Your task to perform on an android device: Play the last video I watched on Youtube Image 0: 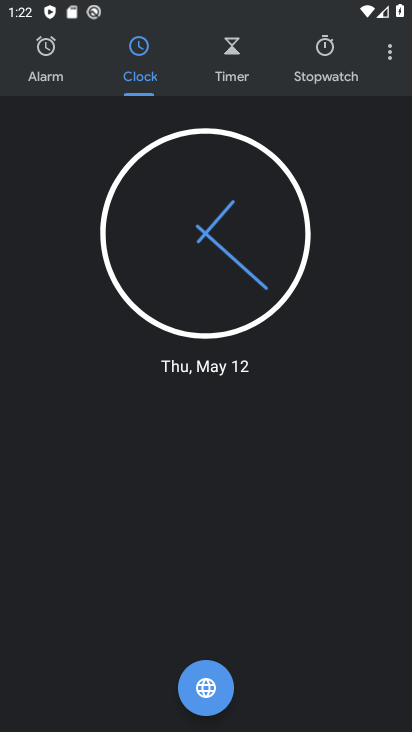
Step 0: press home button
Your task to perform on an android device: Play the last video I watched on Youtube Image 1: 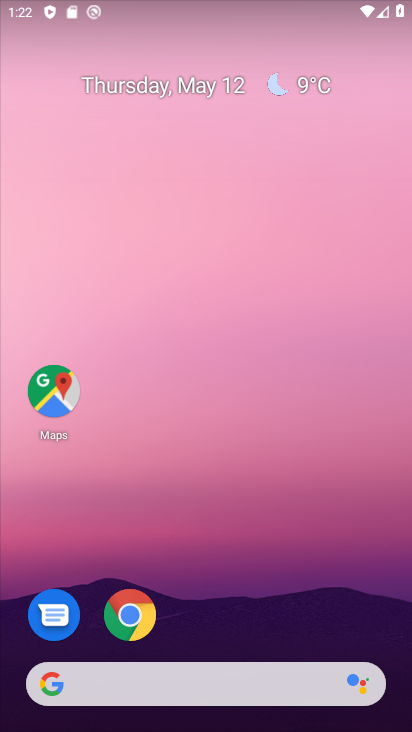
Step 1: drag from (203, 659) to (202, 396)
Your task to perform on an android device: Play the last video I watched on Youtube Image 2: 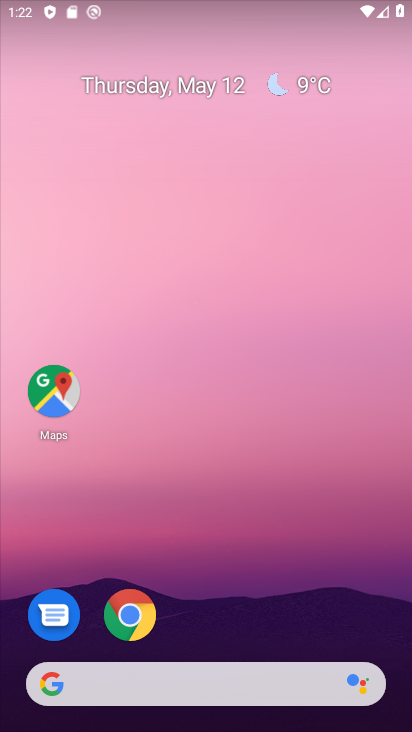
Step 2: drag from (252, 691) to (284, 349)
Your task to perform on an android device: Play the last video I watched on Youtube Image 3: 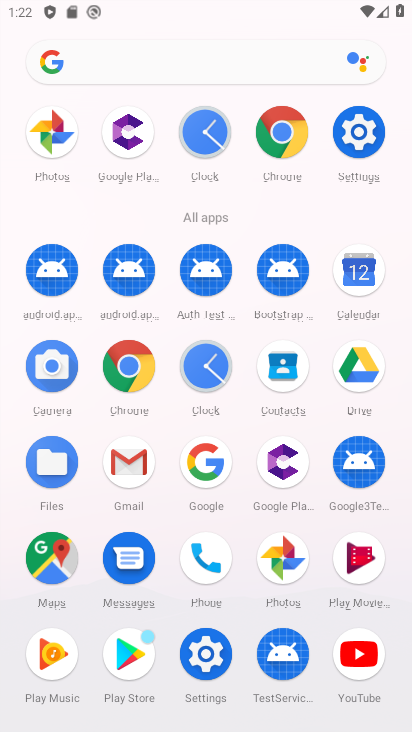
Step 3: click (368, 652)
Your task to perform on an android device: Play the last video I watched on Youtube Image 4: 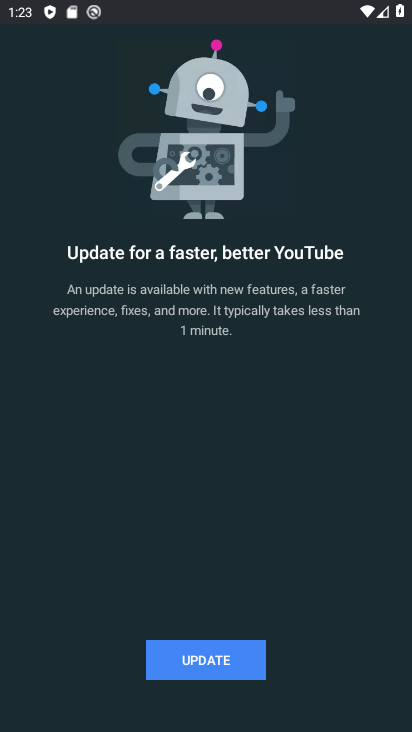
Step 4: click (213, 671)
Your task to perform on an android device: Play the last video I watched on Youtube Image 5: 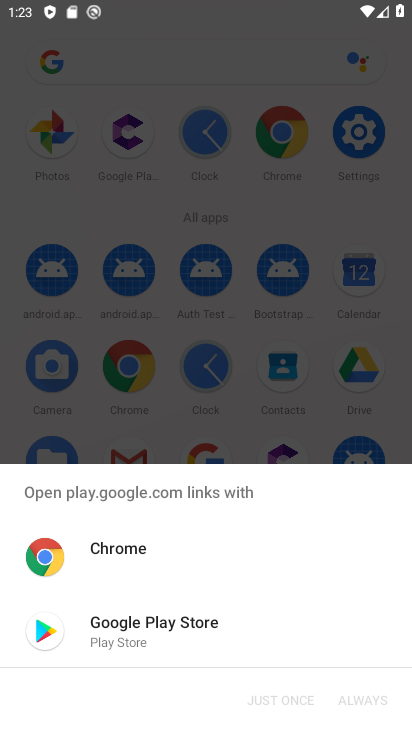
Step 5: click (104, 627)
Your task to perform on an android device: Play the last video I watched on Youtube Image 6: 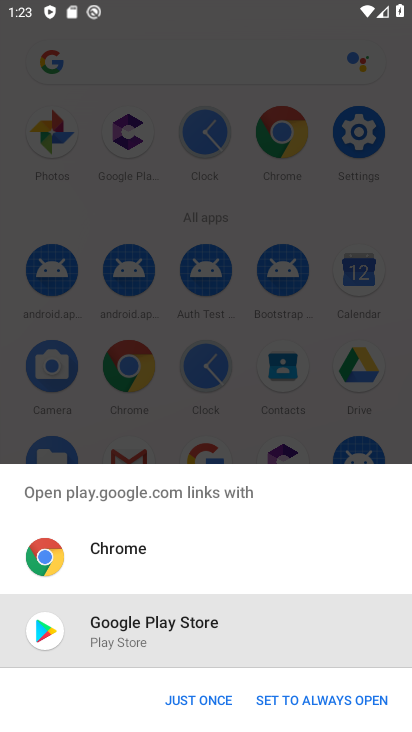
Step 6: click (208, 705)
Your task to perform on an android device: Play the last video I watched on Youtube Image 7: 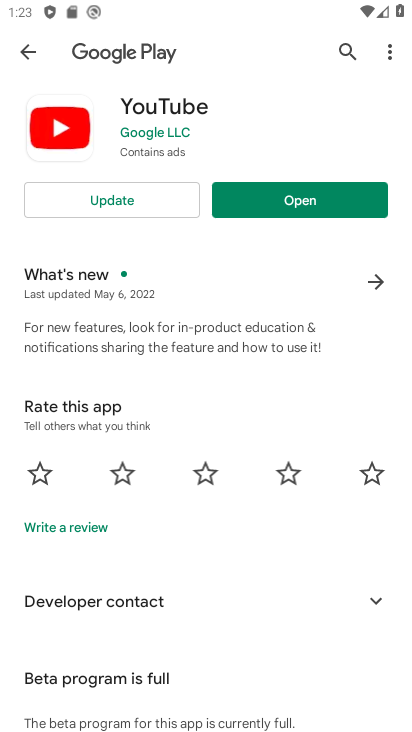
Step 7: click (143, 206)
Your task to perform on an android device: Play the last video I watched on Youtube Image 8: 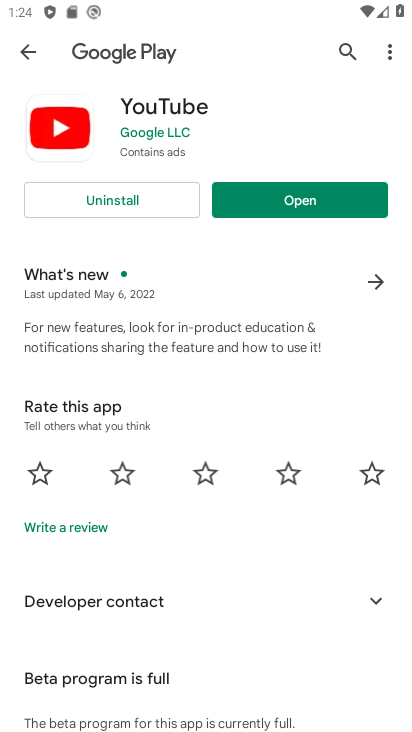
Step 8: click (271, 217)
Your task to perform on an android device: Play the last video I watched on Youtube Image 9: 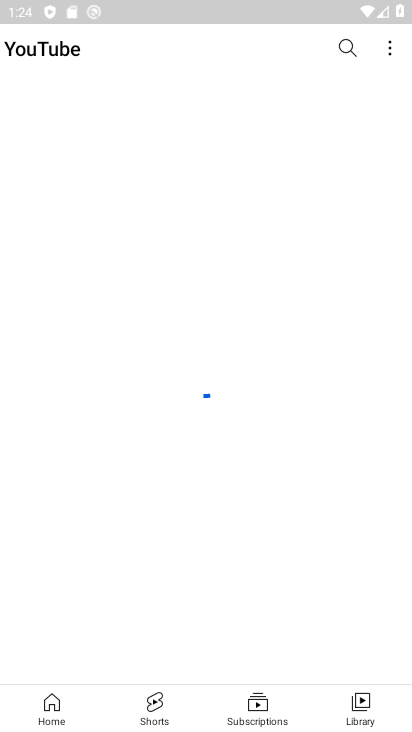
Step 9: click (370, 707)
Your task to perform on an android device: Play the last video I watched on Youtube Image 10: 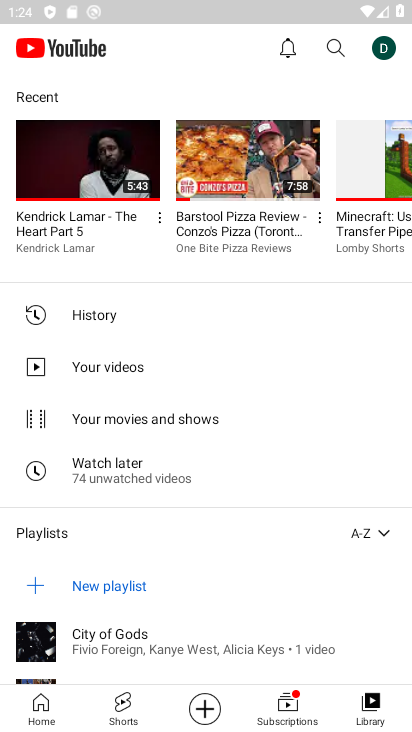
Step 10: click (114, 315)
Your task to perform on an android device: Play the last video I watched on Youtube Image 11: 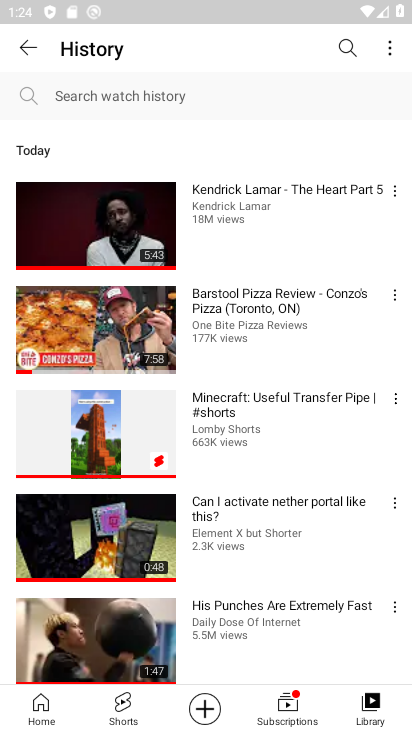
Step 11: click (162, 202)
Your task to perform on an android device: Play the last video I watched on Youtube Image 12: 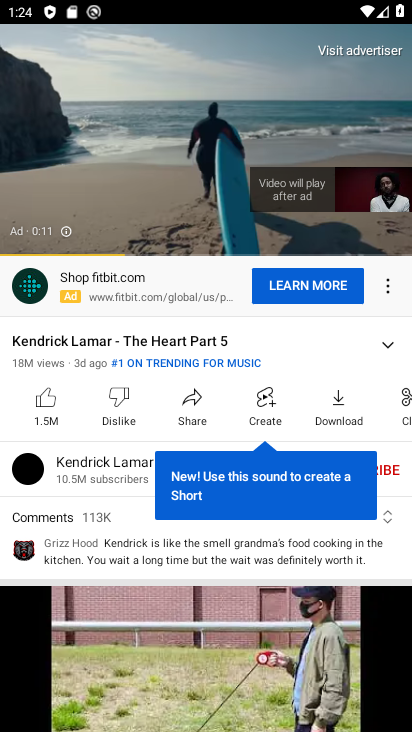
Step 12: task complete